Your task to perform on an android device: delete a single message in the gmail app Image 0: 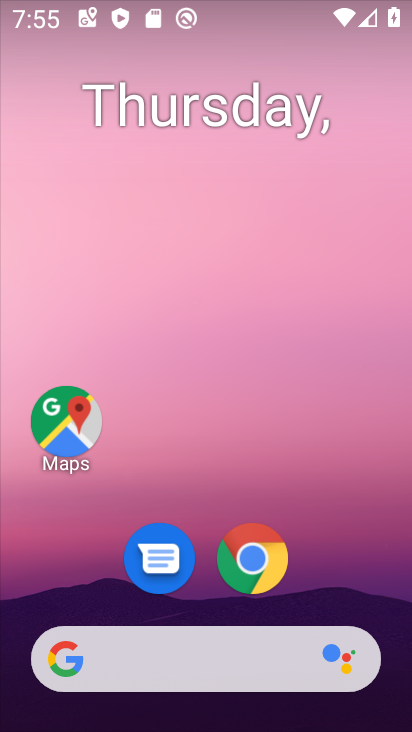
Step 0: drag from (198, 573) to (258, 161)
Your task to perform on an android device: delete a single message in the gmail app Image 1: 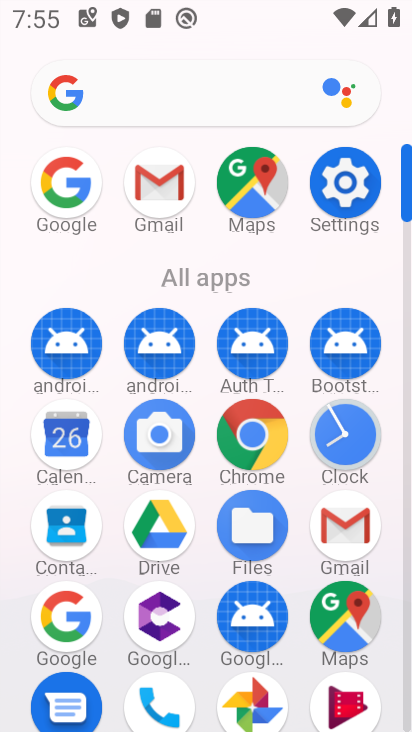
Step 1: click (158, 192)
Your task to perform on an android device: delete a single message in the gmail app Image 2: 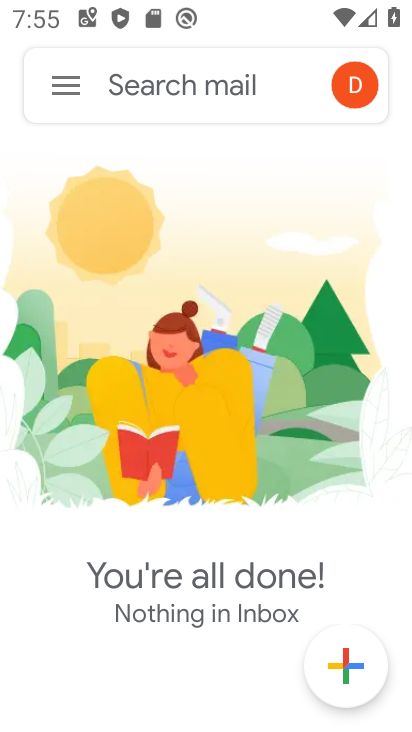
Step 2: task complete